Your task to perform on an android device: Open privacy settings Image 0: 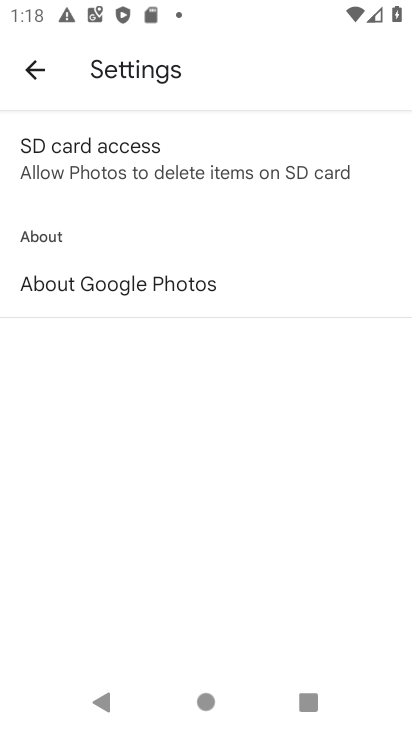
Step 0: press home button
Your task to perform on an android device: Open privacy settings Image 1: 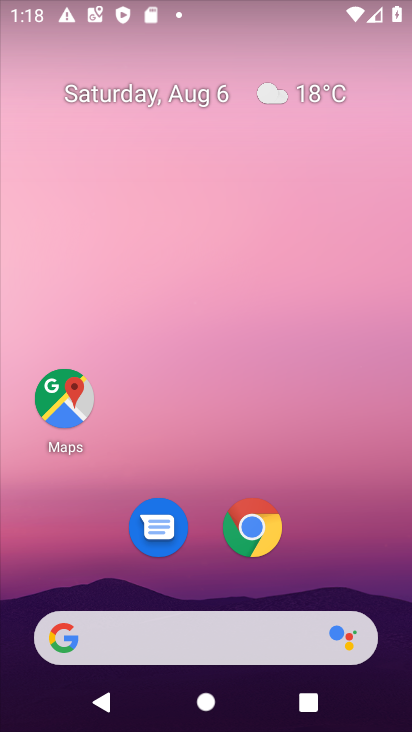
Step 1: drag from (229, 586) to (320, 74)
Your task to perform on an android device: Open privacy settings Image 2: 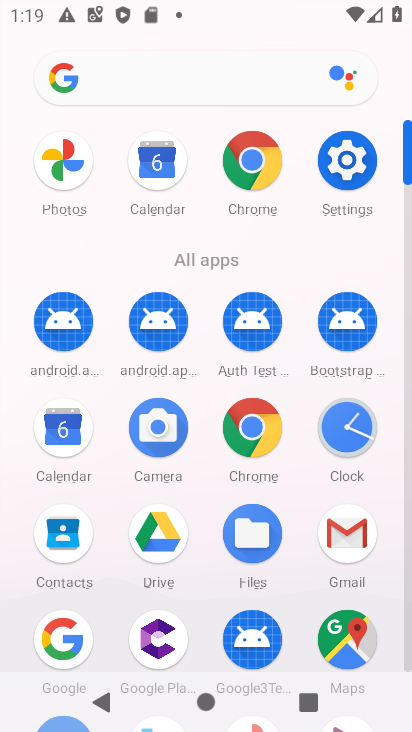
Step 2: drag from (213, 266) to (240, 30)
Your task to perform on an android device: Open privacy settings Image 3: 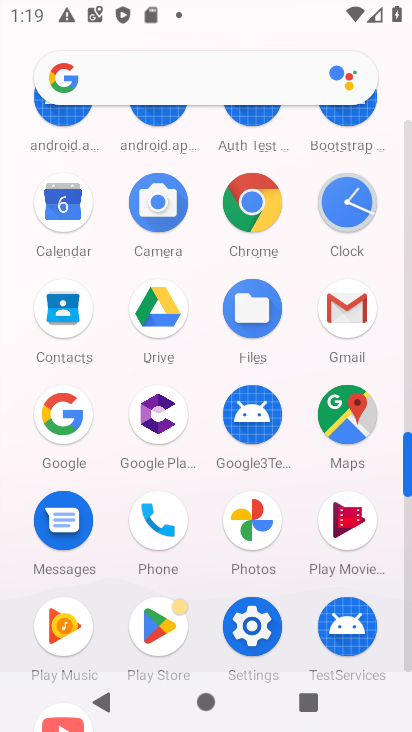
Step 3: click (270, 630)
Your task to perform on an android device: Open privacy settings Image 4: 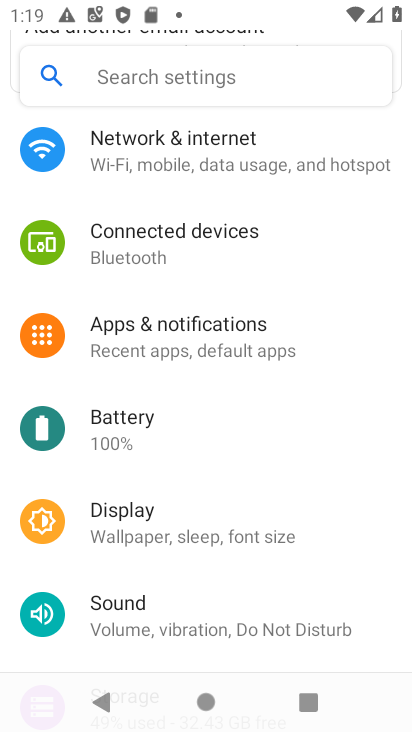
Step 4: drag from (178, 400) to (177, 124)
Your task to perform on an android device: Open privacy settings Image 5: 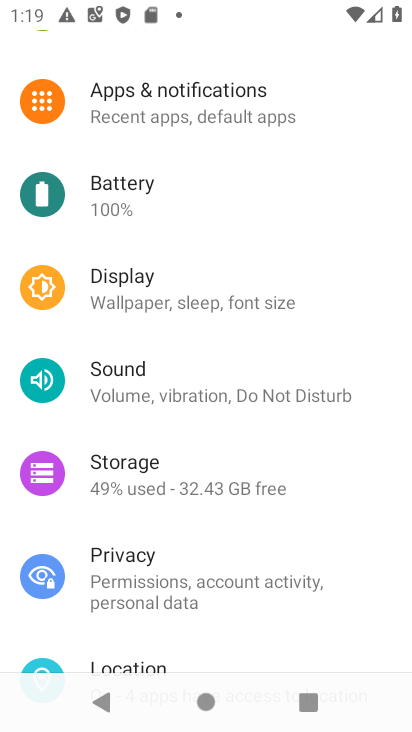
Step 5: click (203, 633)
Your task to perform on an android device: Open privacy settings Image 6: 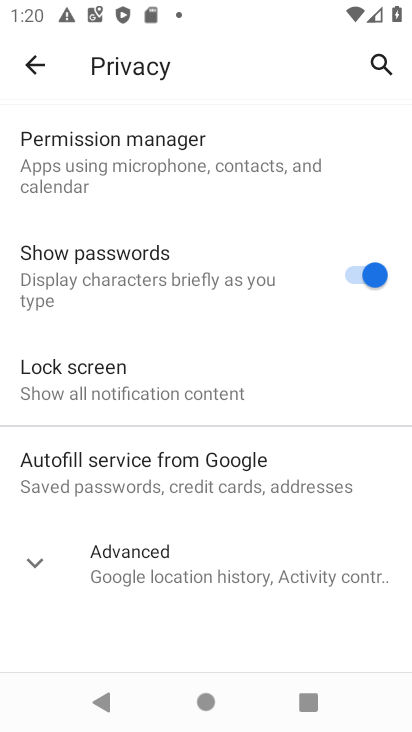
Step 6: task complete